Your task to perform on an android device: Do I have any events today? Image 0: 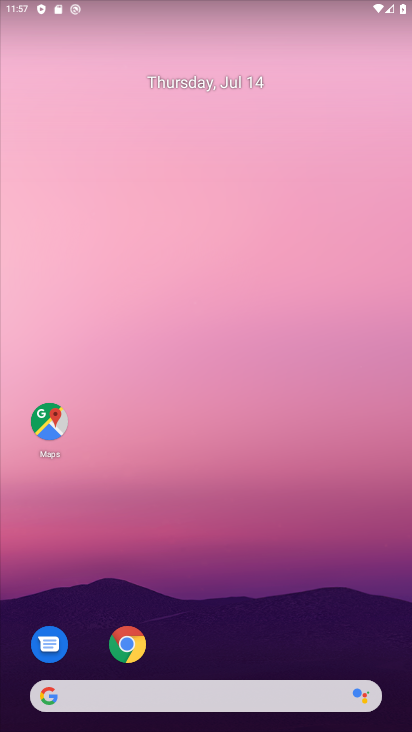
Step 0: drag from (185, 704) to (222, 96)
Your task to perform on an android device: Do I have any events today? Image 1: 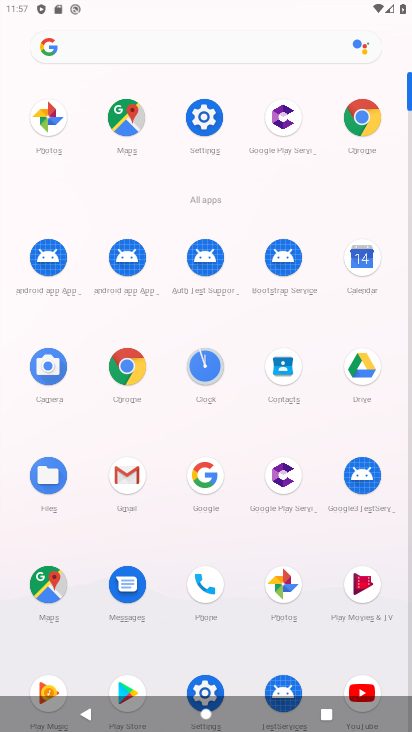
Step 1: click (365, 256)
Your task to perform on an android device: Do I have any events today? Image 2: 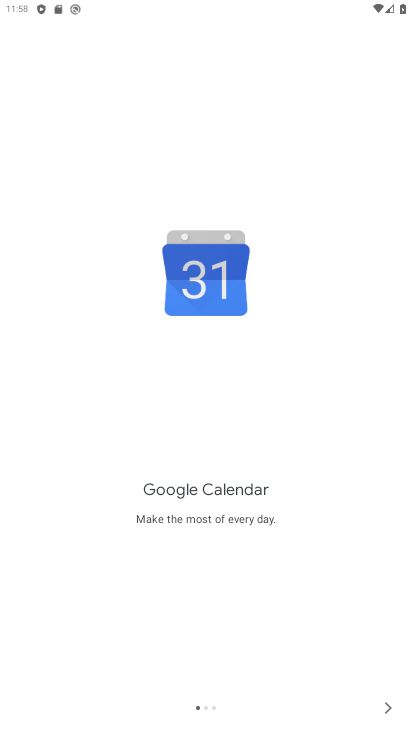
Step 2: click (384, 700)
Your task to perform on an android device: Do I have any events today? Image 3: 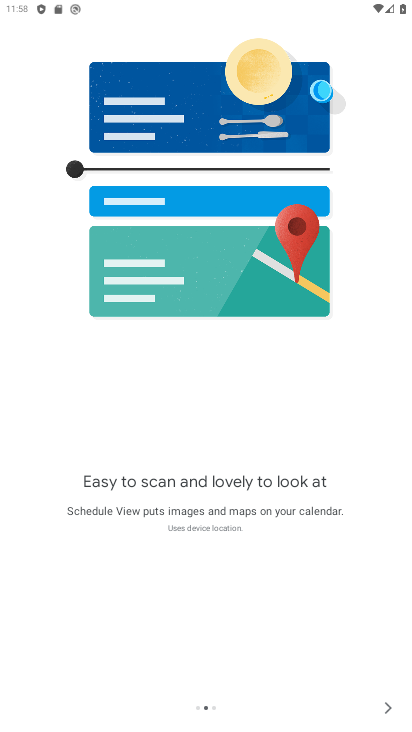
Step 3: click (384, 700)
Your task to perform on an android device: Do I have any events today? Image 4: 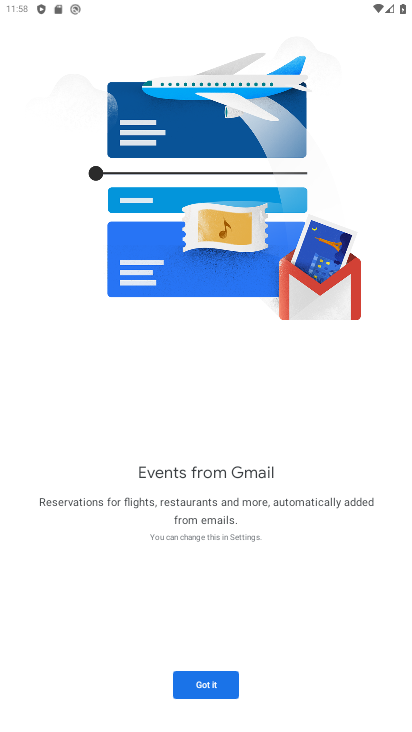
Step 4: click (209, 685)
Your task to perform on an android device: Do I have any events today? Image 5: 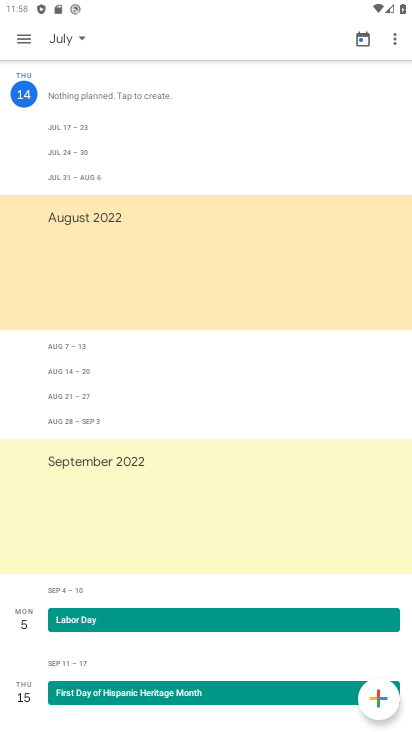
Step 5: click (39, 33)
Your task to perform on an android device: Do I have any events today? Image 6: 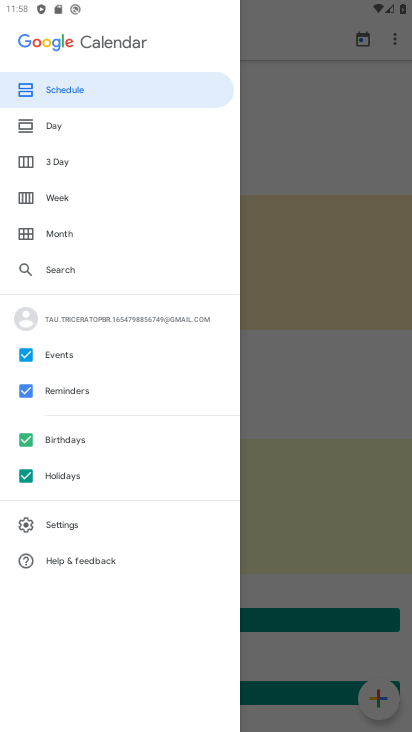
Step 6: click (21, 478)
Your task to perform on an android device: Do I have any events today? Image 7: 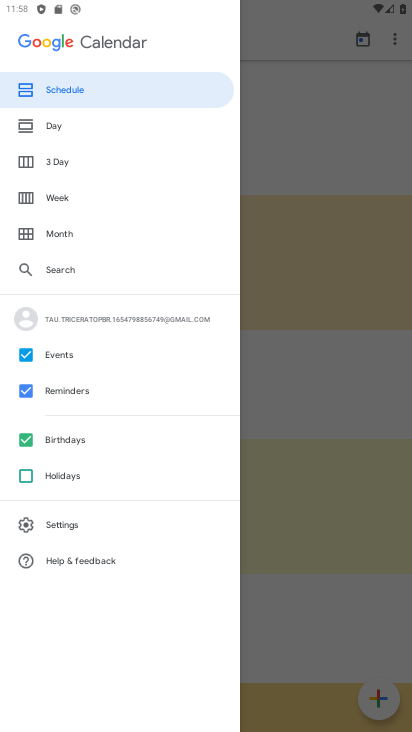
Step 7: click (22, 439)
Your task to perform on an android device: Do I have any events today? Image 8: 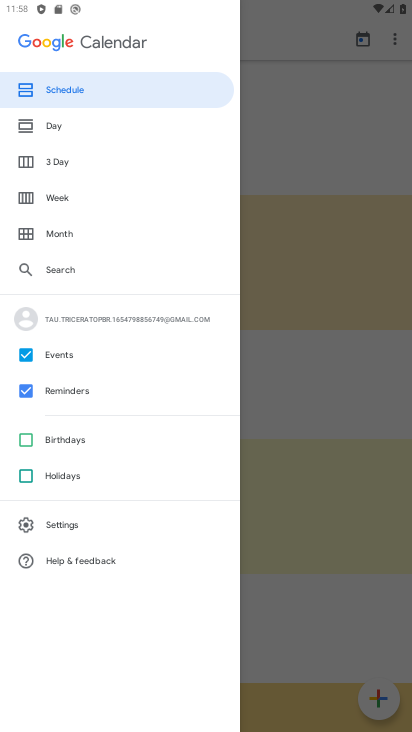
Step 8: click (24, 384)
Your task to perform on an android device: Do I have any events today? Image 9: 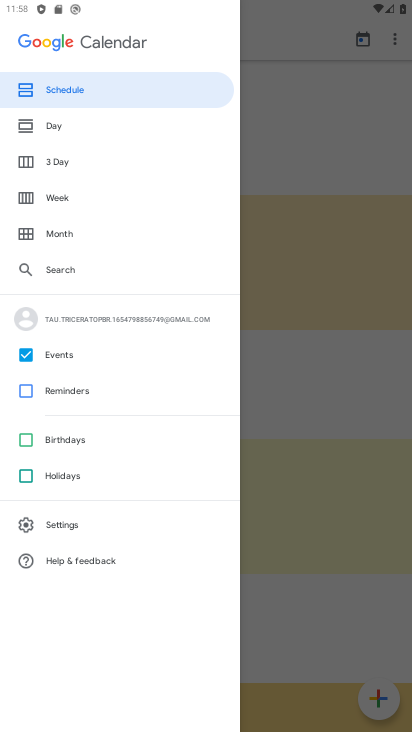
Step 9: click (260, 134)
Your task to perform on an android device: Do I have any events today? Image 10: 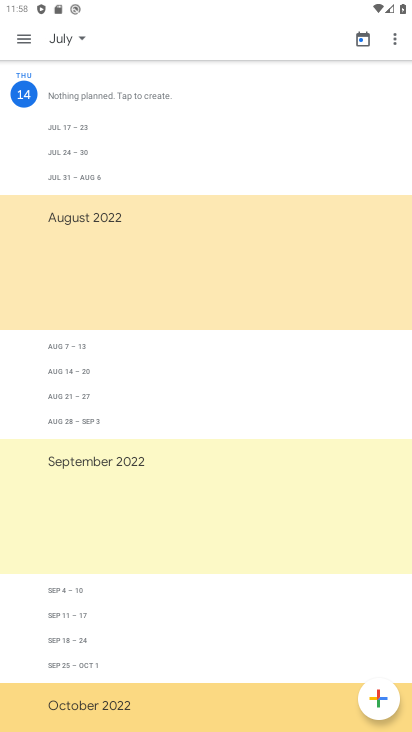
Step 10: task complete